Your task to perform on an android device: Go to ESPN.com Image 0: 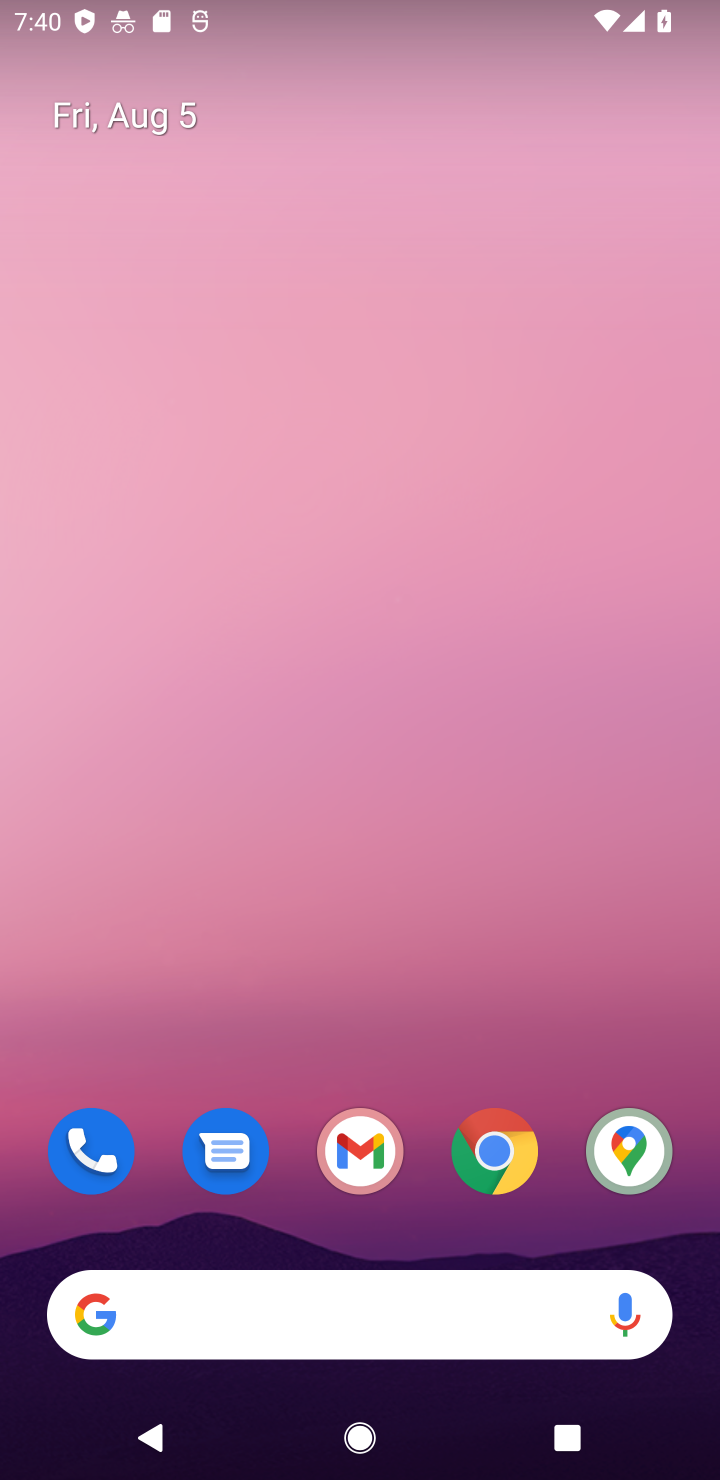
Step 0: click (484, 1157)
Your task to perform on an android device: Go to ESPN.com Image 1: 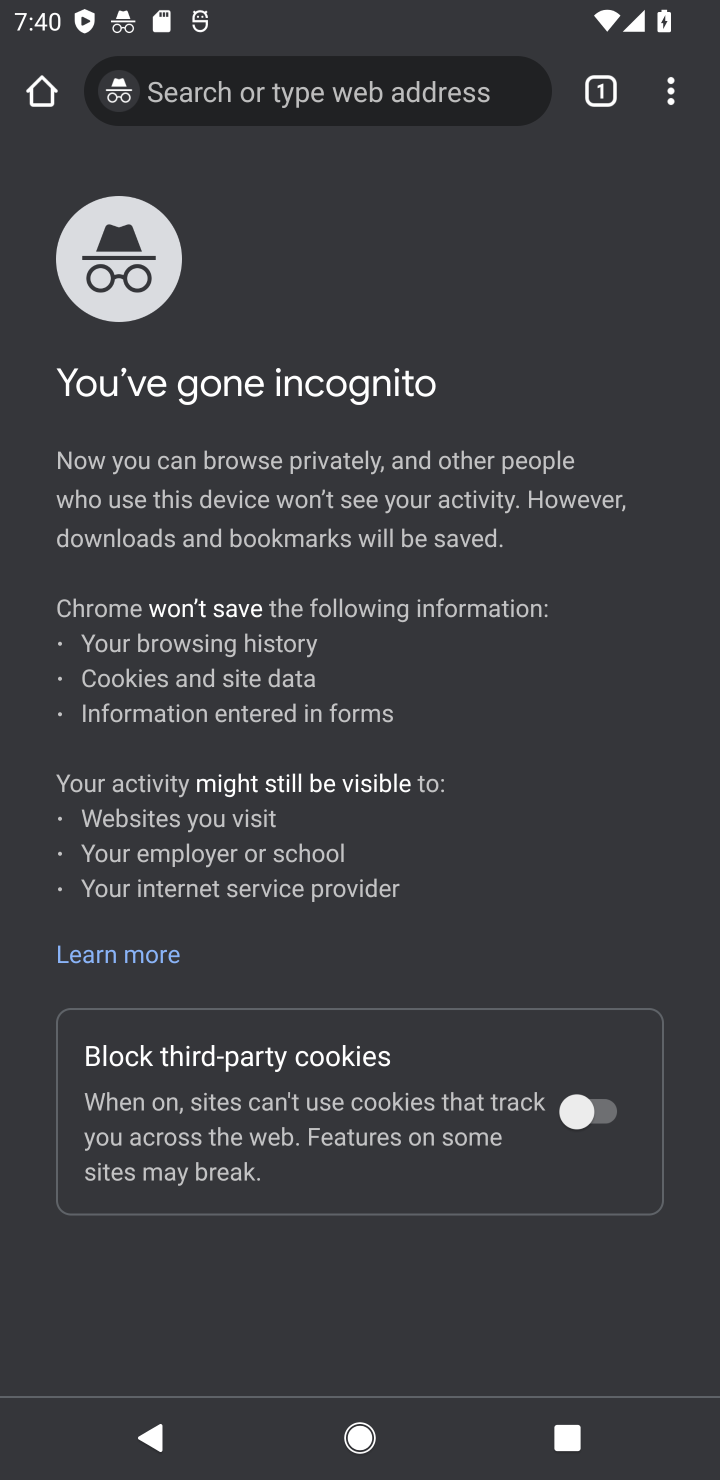
Step 1: click (595, 112)
Your task to perform on an android device: Go to ESPN.com Image 2: 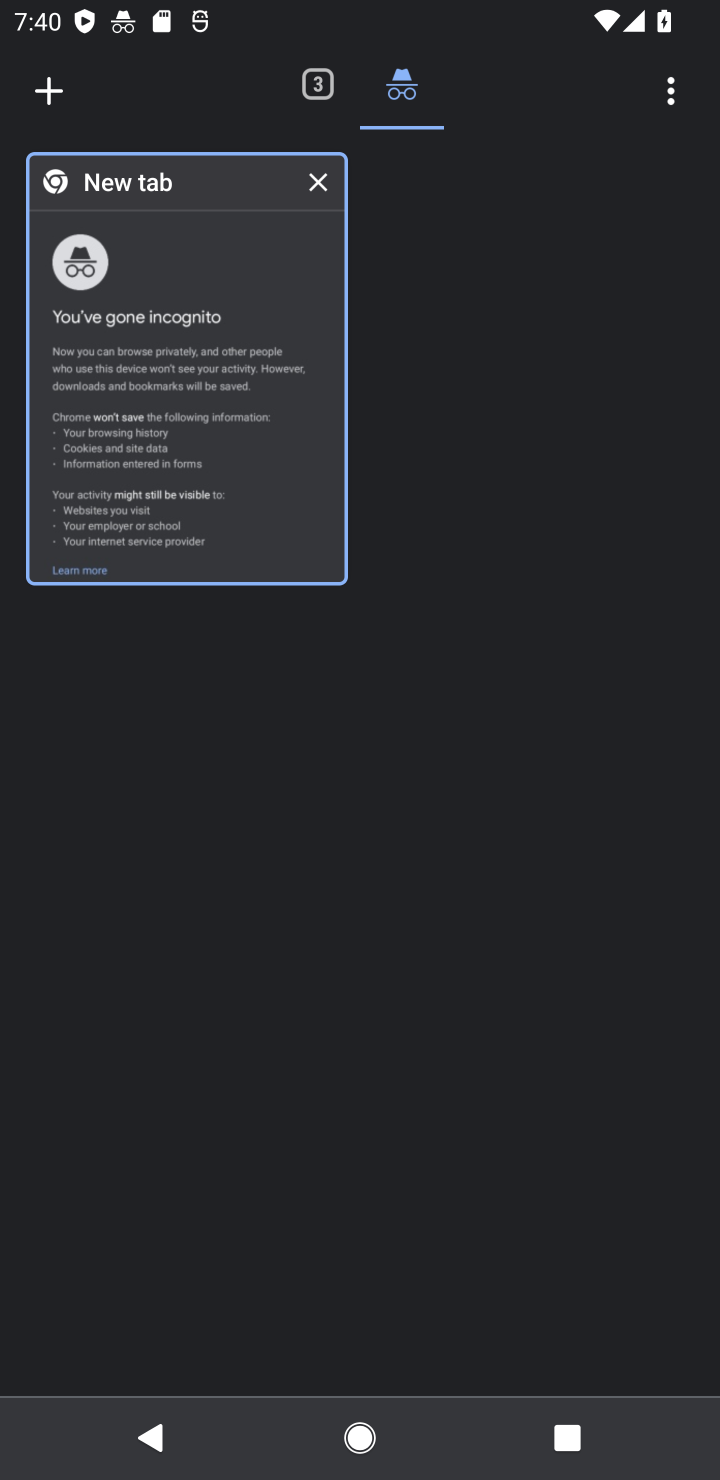
Step 2: click (47, 101)
Your task to perform on an android device: Go to ESPN.com Image 3: 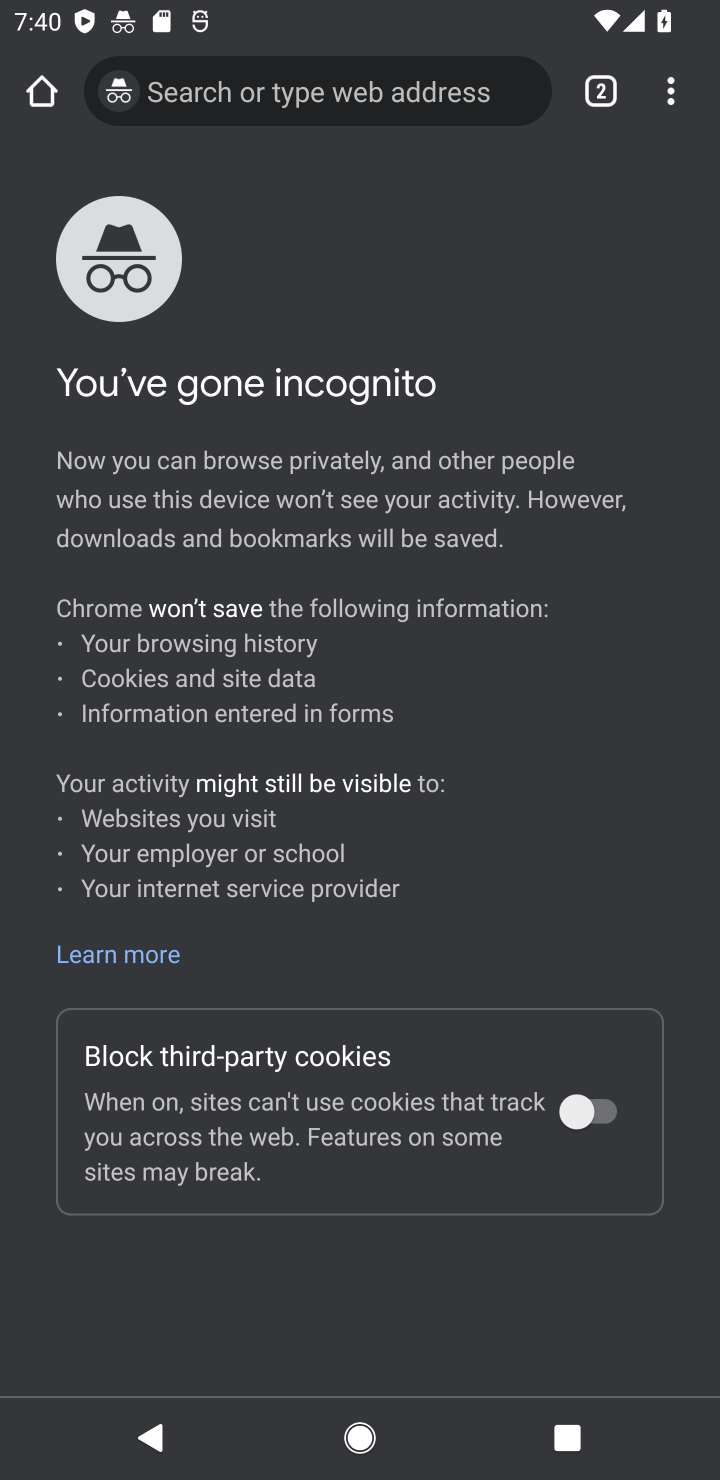
Step 3: click (679, 72)
Your task to perform on an android device: Go to ESPN.com Image 4: 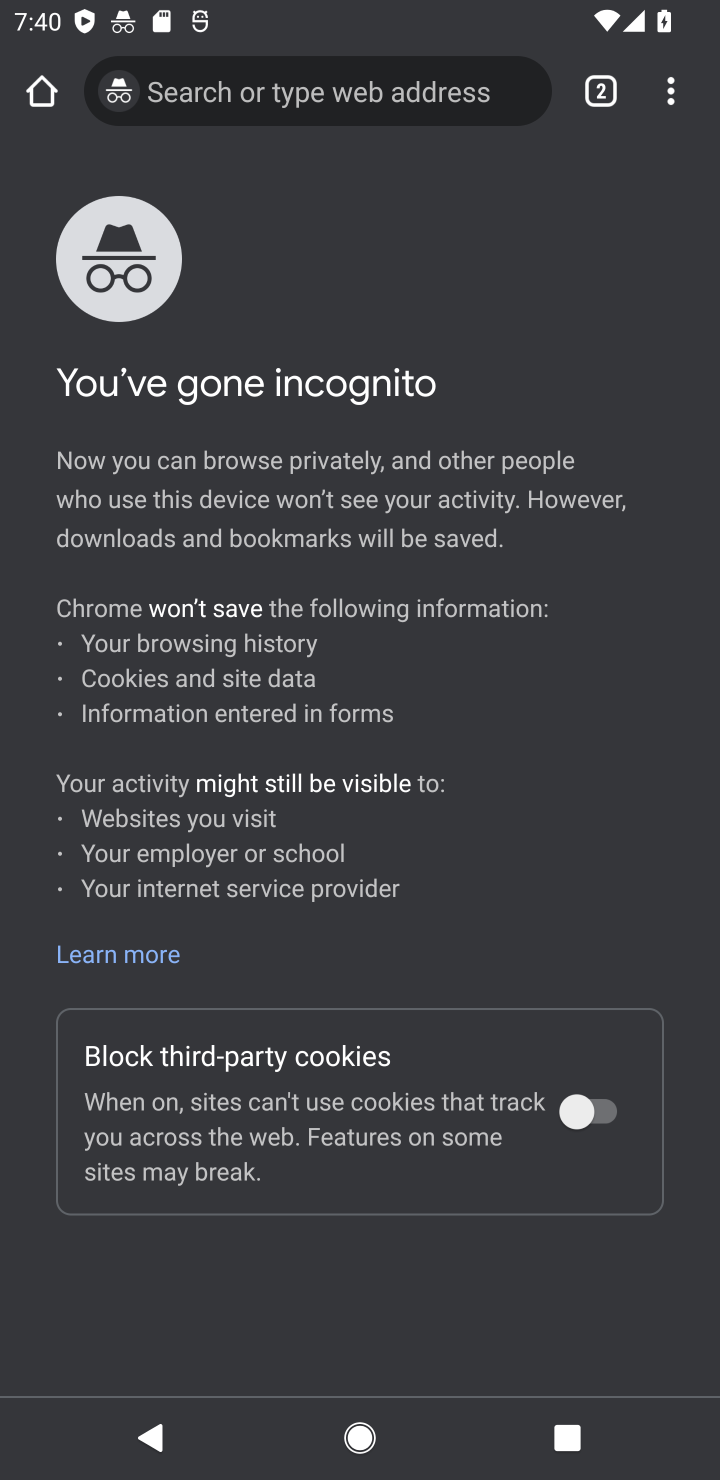
Step 4: drag from (672, 77) to (442, 291)
Your task to perform on an android device: Go to ESPN.com Image 5: 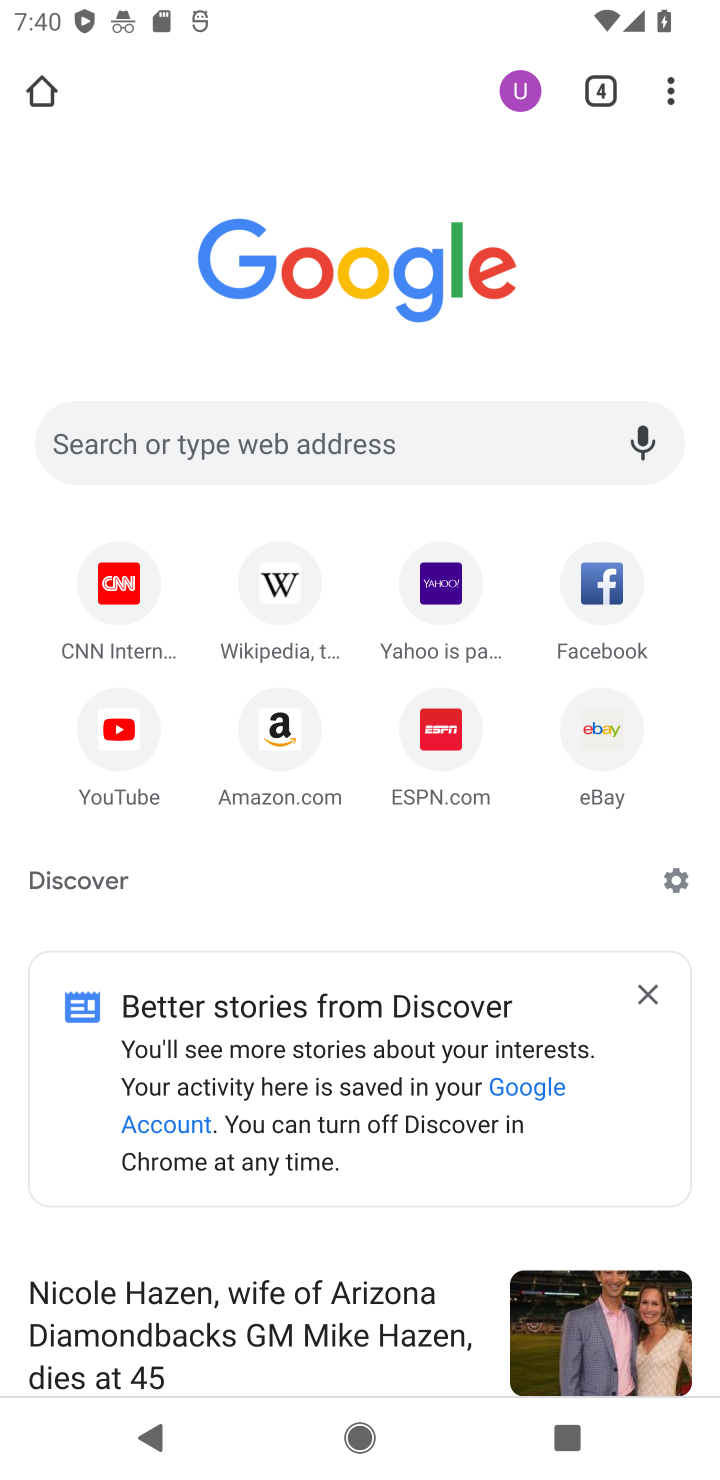
Step 5: drag from (664, 87) to (43, 790)
Your task to perform on an android device: Go to ESPN.com Image 6: 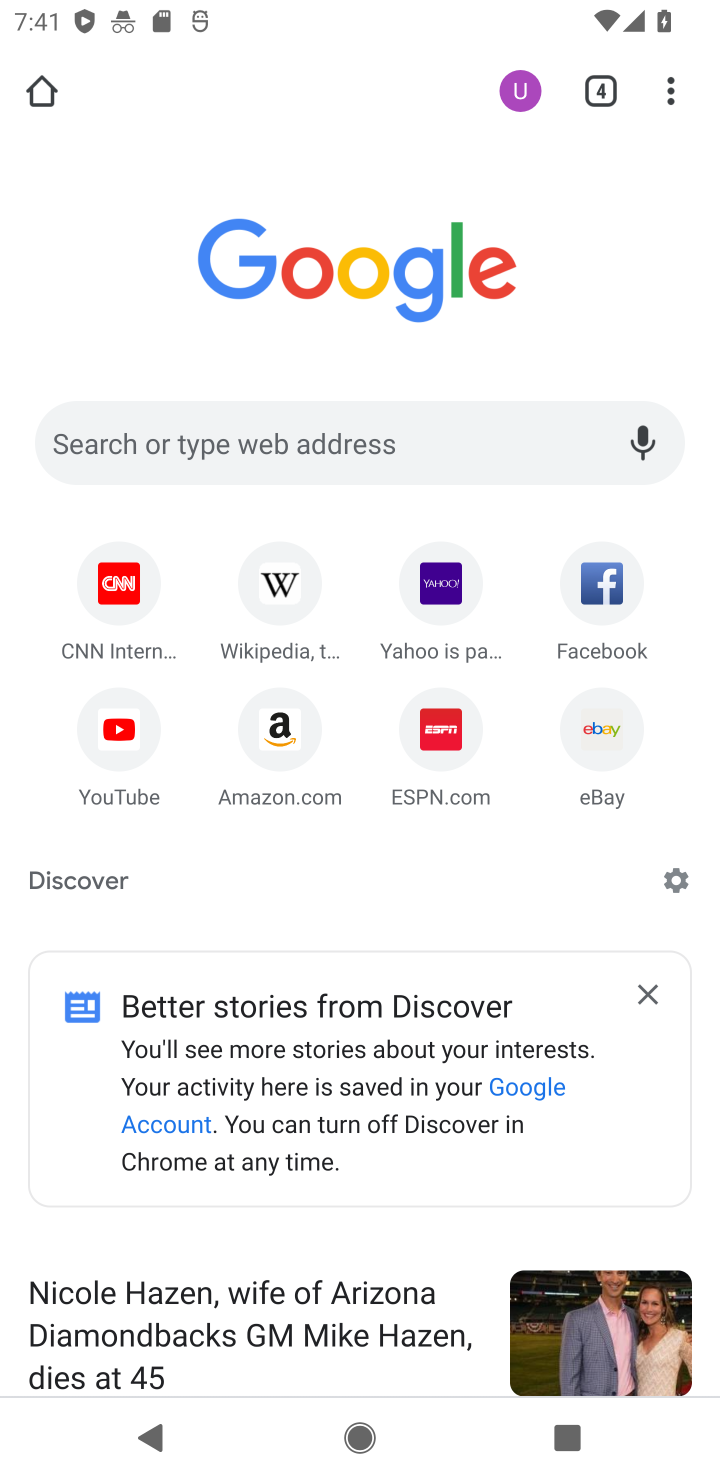
Step 6: click (397, 734)
Your task to perform on an android device: Go to ESPN.com Image 7: 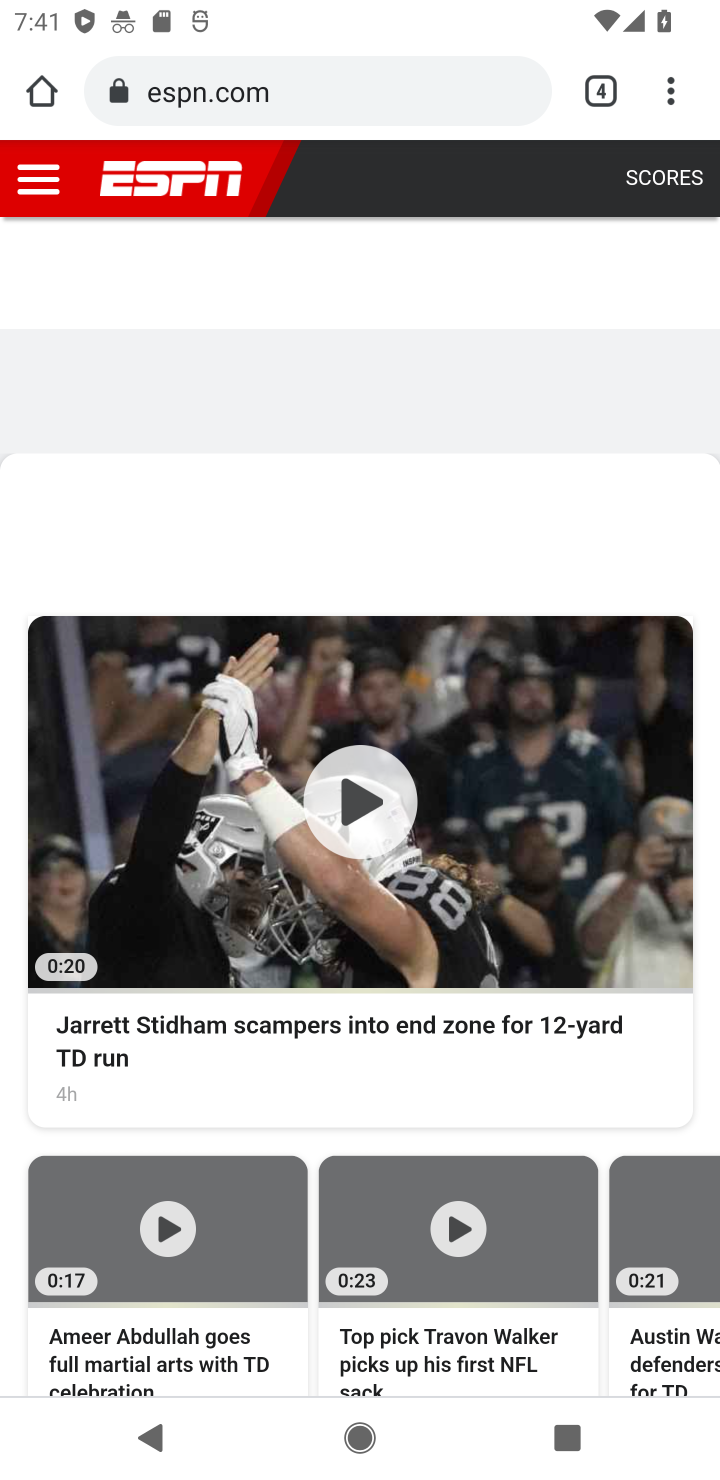
Step 7: task complete